Your task to perform on an android device: Set the phone to "Do not disturb". Image 0: 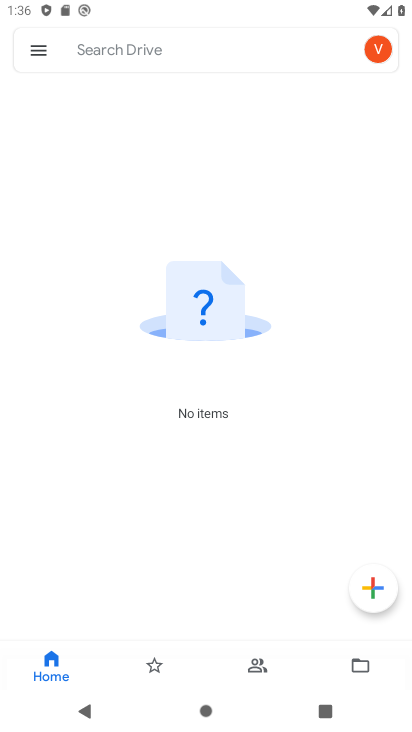
Step 0: press home button
Your task to perform on an android device: Set the phone to "Do not disturb". Image 1: 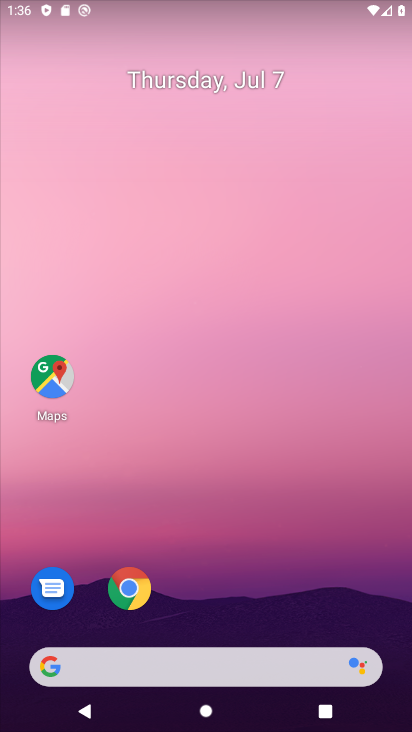
Step 1: drag from (211, 605) to (241, 249)
Your task to perform on an android device: Set the phone to "Do not disturb". Image 2: 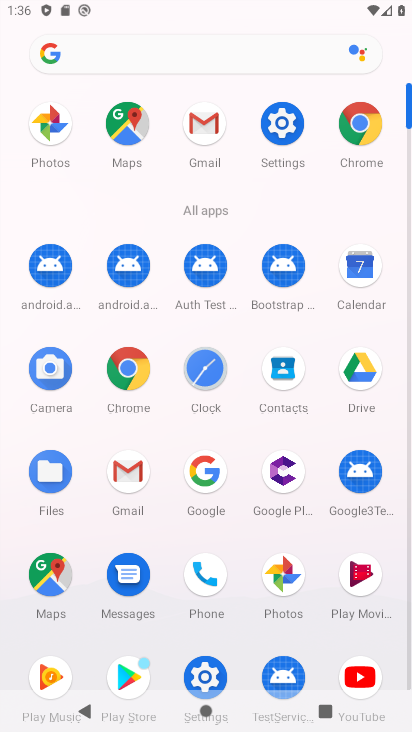
Step 2: click (193, 681)
Your task to perform on an android device: Set the phone to "Do not disturb". Image 3: 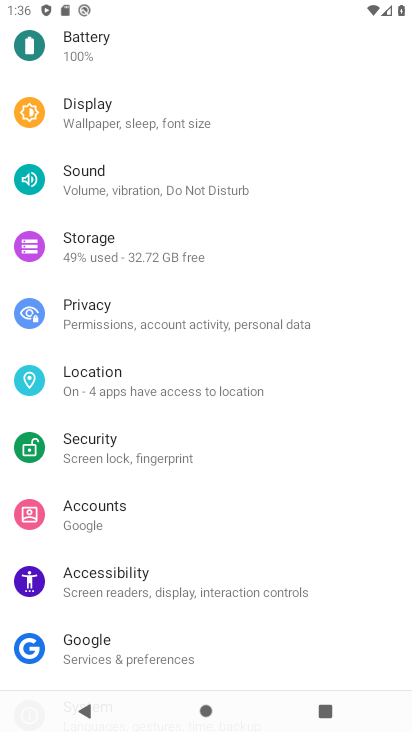
Step 3: drag from (141, 207) to (145, 512)
Your task to perform on an android device: Set the phone to "Do not disturb". Image 4: 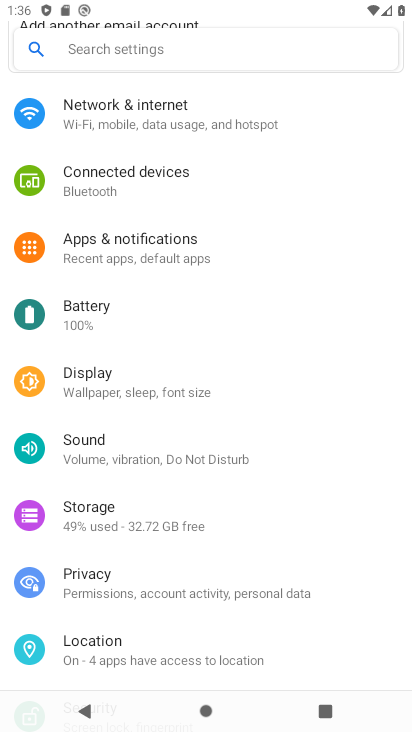
Step 4: click (167, 271)
Your task to perform on an android device: Set the phone to "Do not disturb". Image 5: 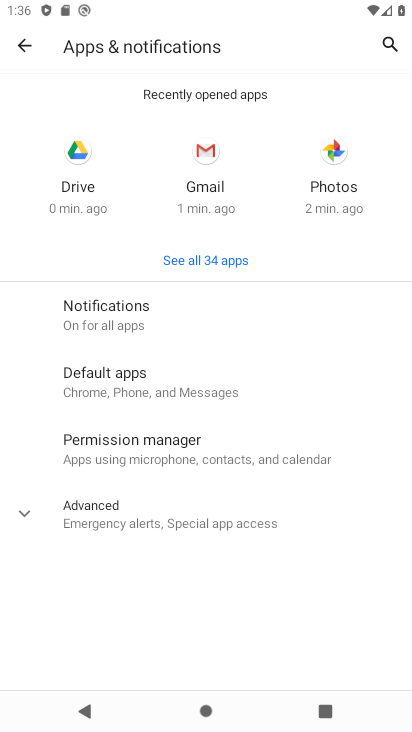
Step 5: click (188, 318)
Your task to perform on an android device: Set the phone to "Do not disturb". Image 6: 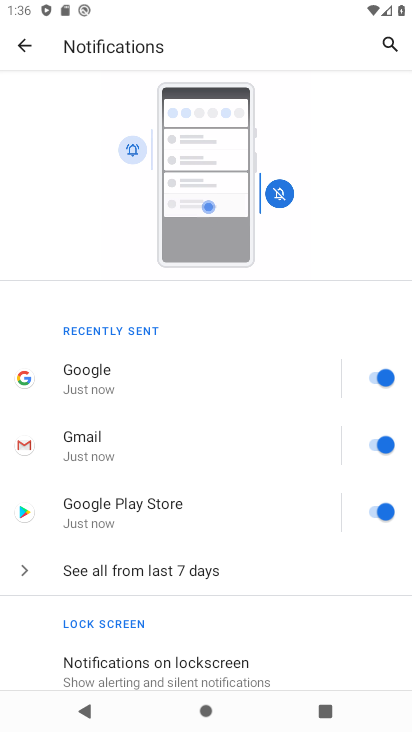
Step 6: drag from (221, 649) to (301, 255)
Your task to perform on an android device: Set the phone to "Do not disturb". Image 7: 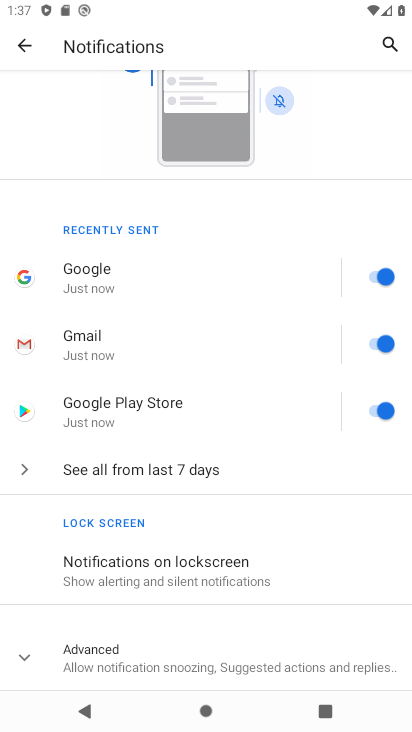
Step 7: drag from (139, 503) to (181, 327)
Your task to perform on an android device: Set the phone to "Do not disturb". Image 8: 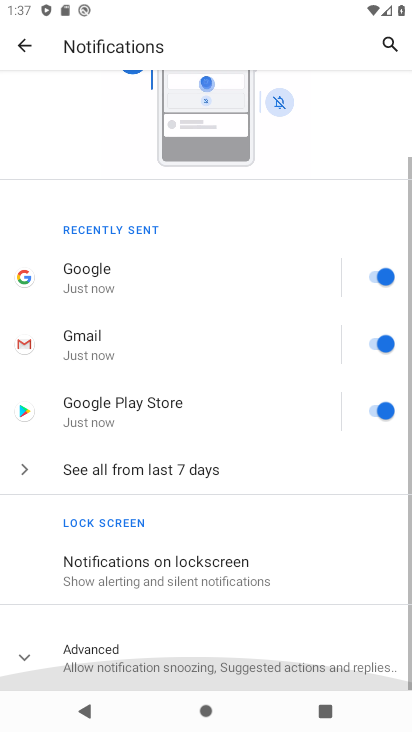
Step 8: click (194, 655)
Your task to perform on an android device: Set the phone to "Do not disturb". Image 9: 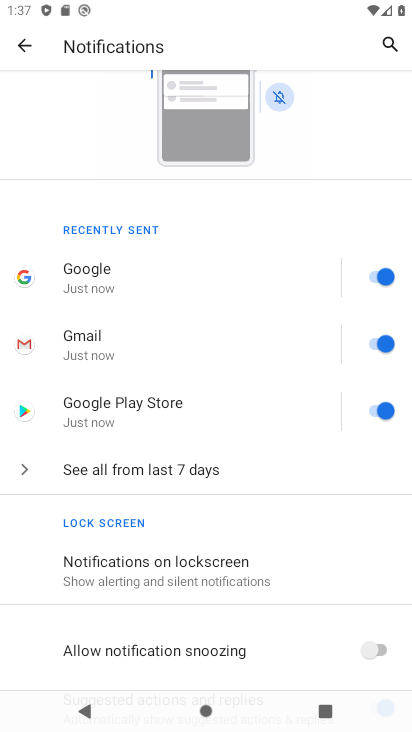
Step 9: drag from (128, 660) to (204, 284)
Your task to perform on an android device: Set the phone to "Do not disturb". Image 10: 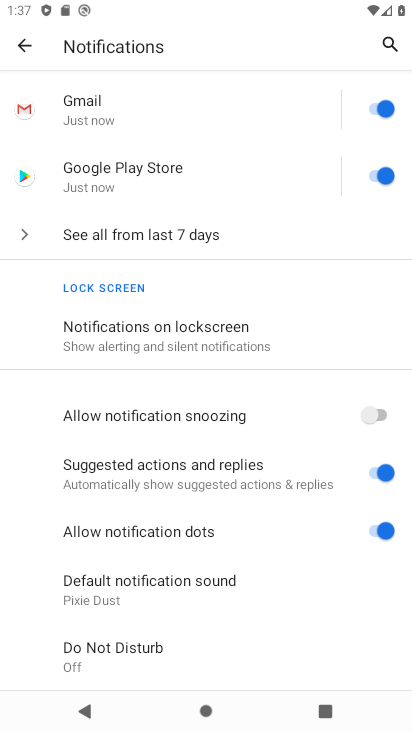
Step 10: click (193, 652)
Your task to perform on an android device: Set the phone to "Do not disturb". Image 11: 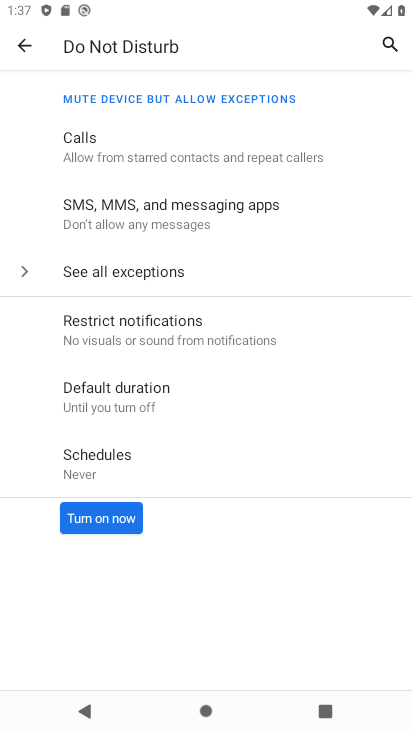
Step 11: click (125, 521)
Your task to perform on an android device: Set the phone to "Do not disturb". Image 12: 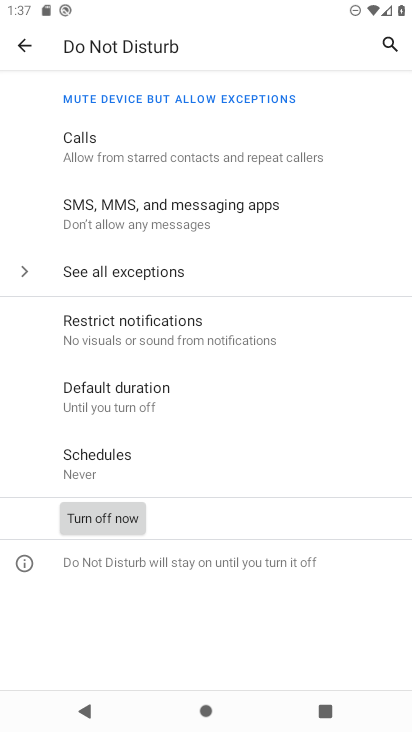
Step 12: task complete